Your task to perform on an android device: change the clock display to show seconds Image 0: 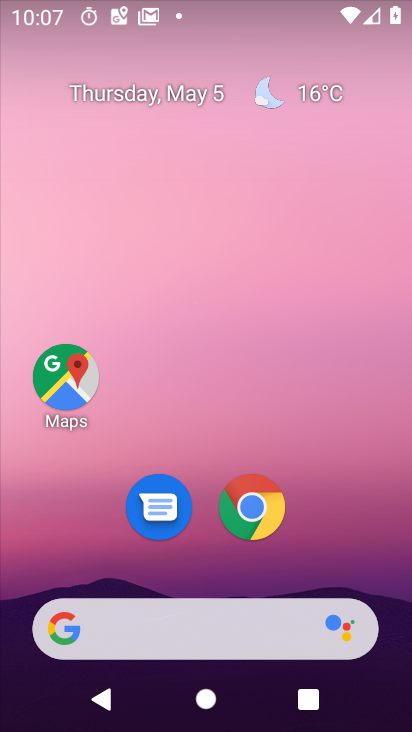
Step 0: drag from (188, 589) to (185, 147)
Your task to perform on an android device: change the clock display to show seconds Image 1: 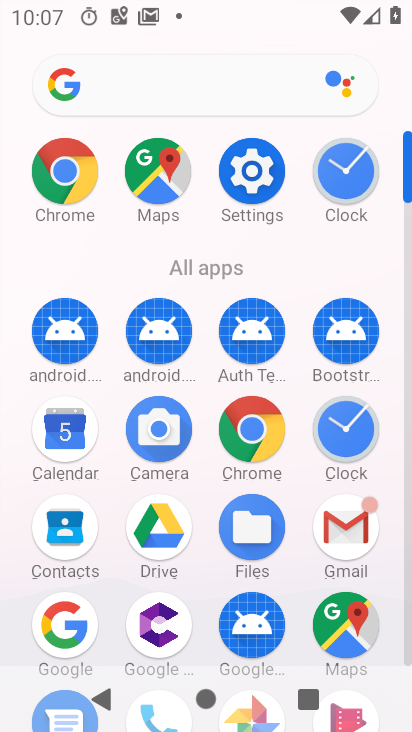
Step 1: click (348, 410)
Your task to perform on an android device: change the clock display to show seconds Image 2: 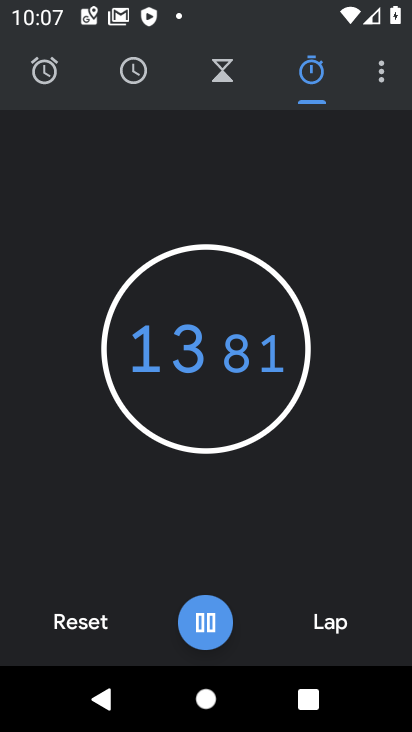
Step 2: click (212, 362)
Your task to perform on an android device: change the clock display to show seconds Image 3: 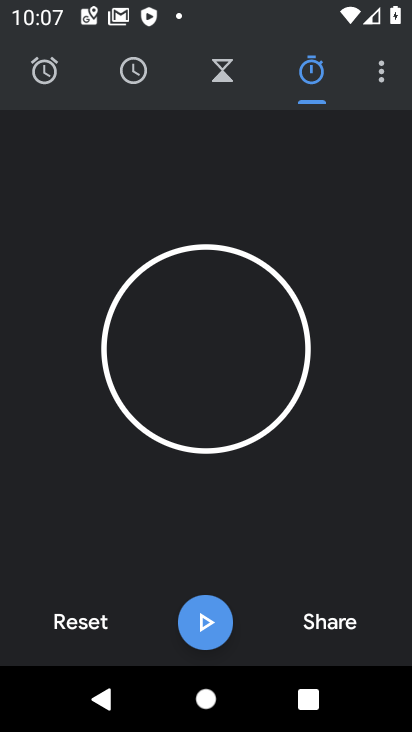
Step 3: click (389, 80)
Your task to perform on an android device: change the clock display to show seconds Image 4: 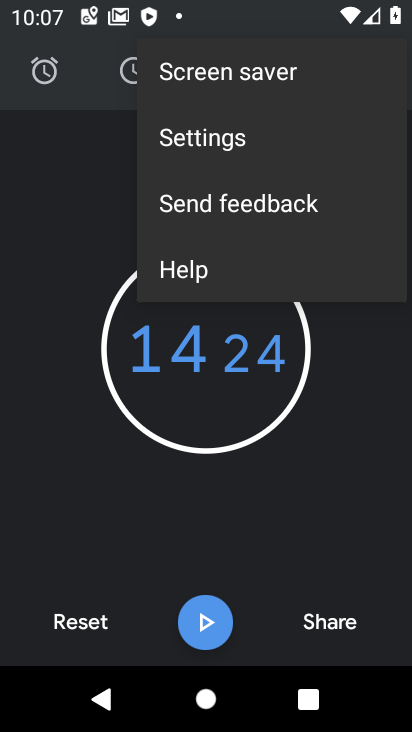
Step 4: click (243, 144)
Your task to perform on an android device: change the clock display to show seconds Image 5: 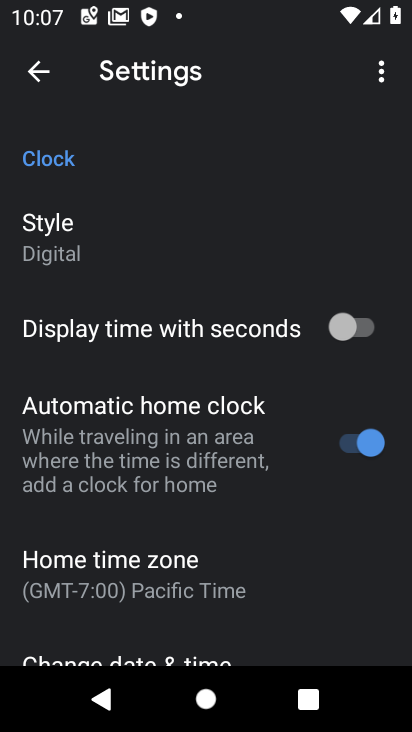
Step 5: click (349, 327)
Your task to perform on an android device: change the clock display to show seconds Image 6: 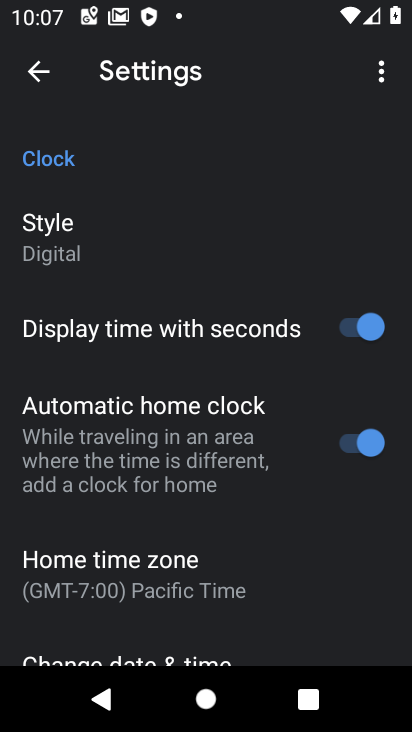
Step 6: task complete